Your task to perform on an android device: Clear the shopping cart on target. Add "usb-a" to the cart on target, then select checkout. Image 0: 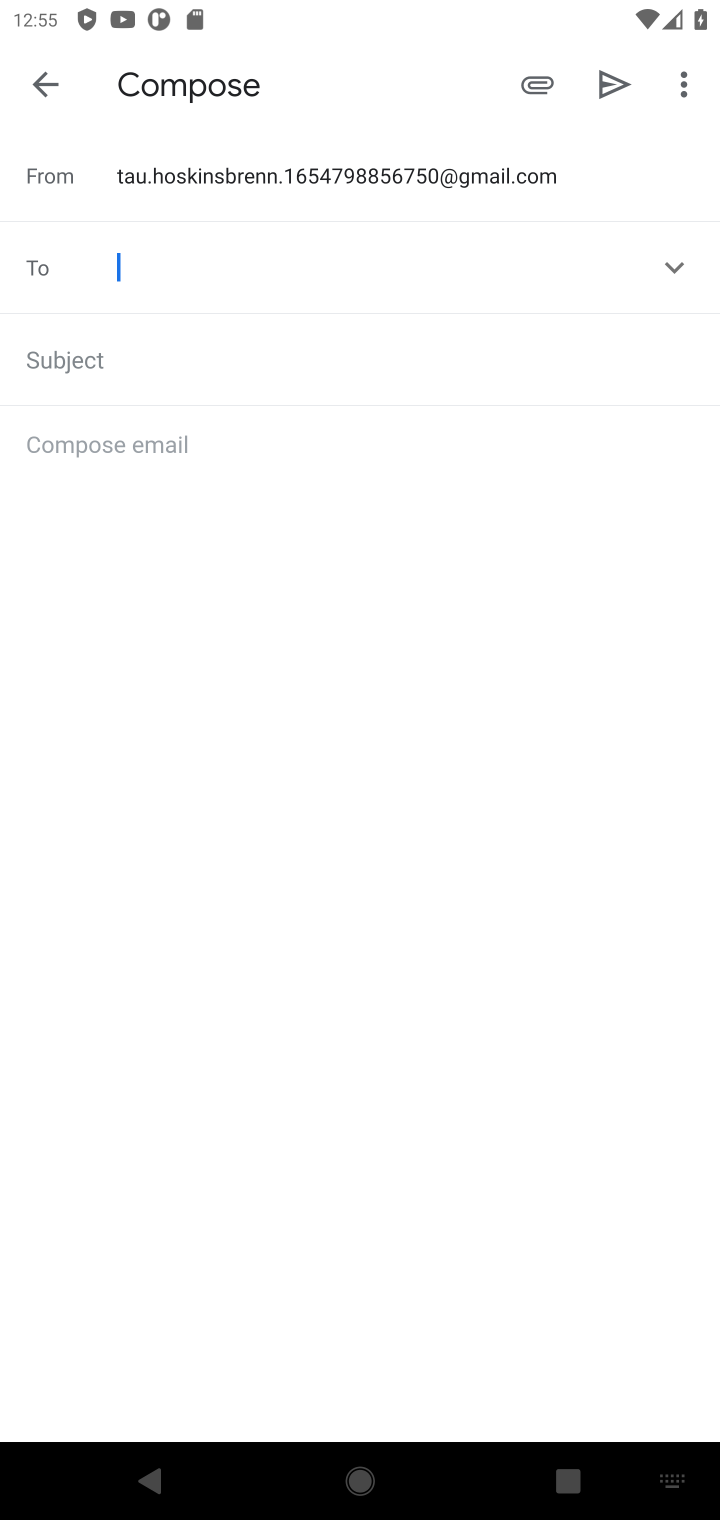
Step 0: task complete